Your task to perform on an android device: Add bose quietcomfort 35 to the cart on bestbuy Image 0: 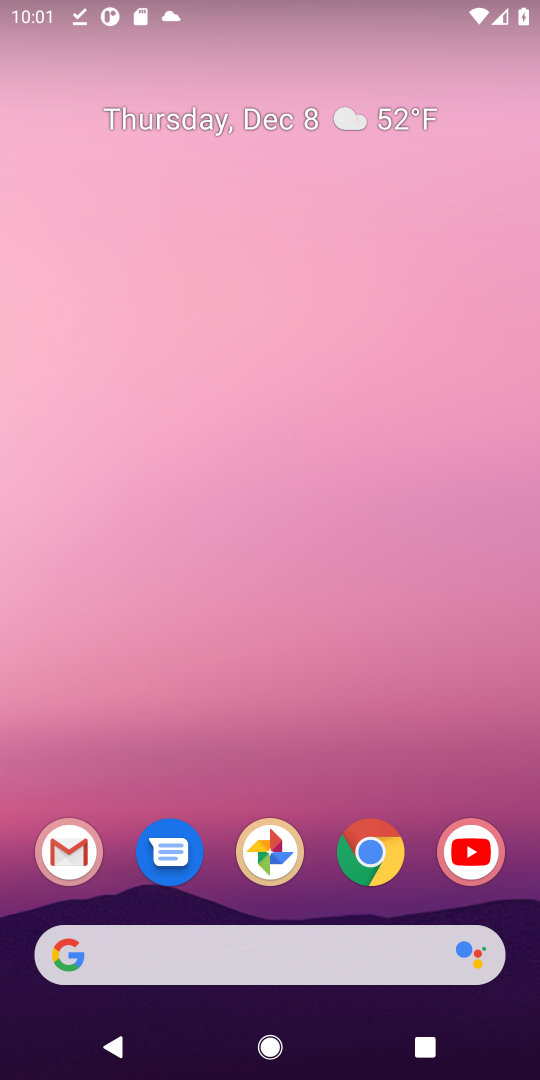
Step 0: click (262, 964)
Your task to perform on an android device: Add bose quietcomfort 35 to the cart on bestbuy Image 1: 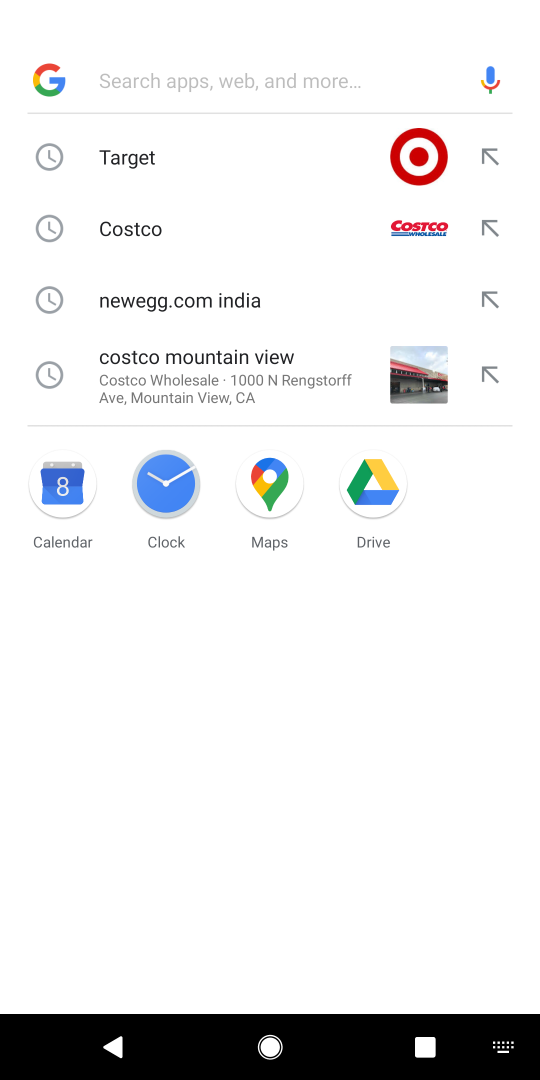
Step 1: type "bestbuy"
Your task to perform on an android device: Add bose quietcomfort 35 to the cart on bestbuy Image 2: 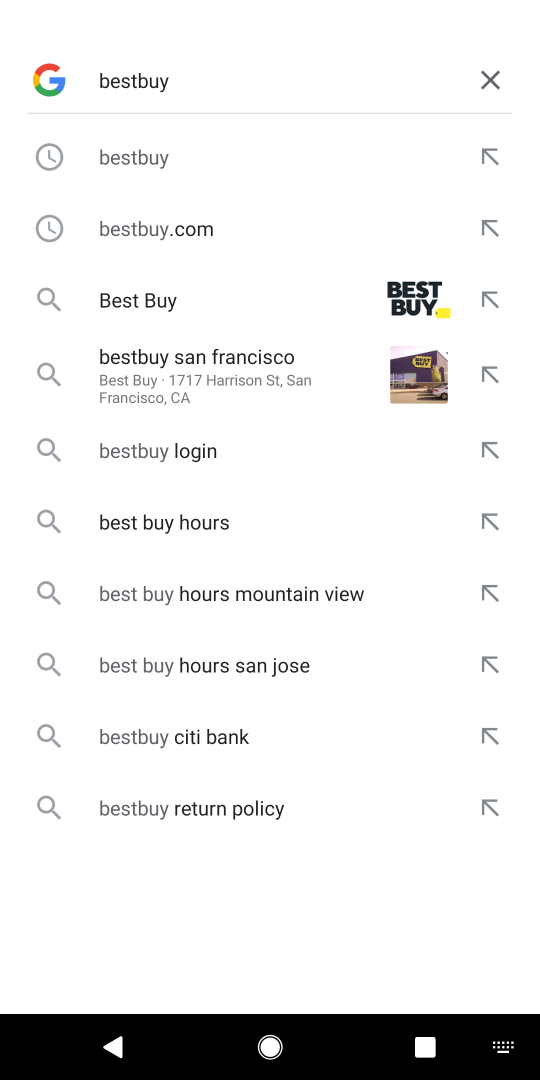
Step 2: click (163, 301)
Your task to perform on an android device: Add bose quietcomfort 35 to the cart on bestbuy Image 3: 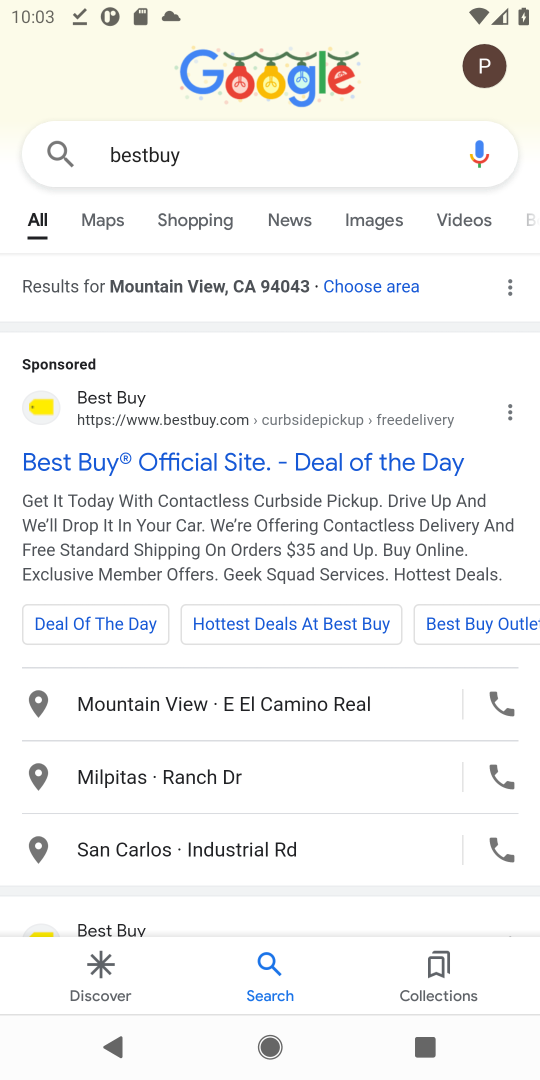
Step 3: click (179, 421)
Your task to perform on an android device: Add bose quietcomfort 35 to the cart on bestbuy Image 4: 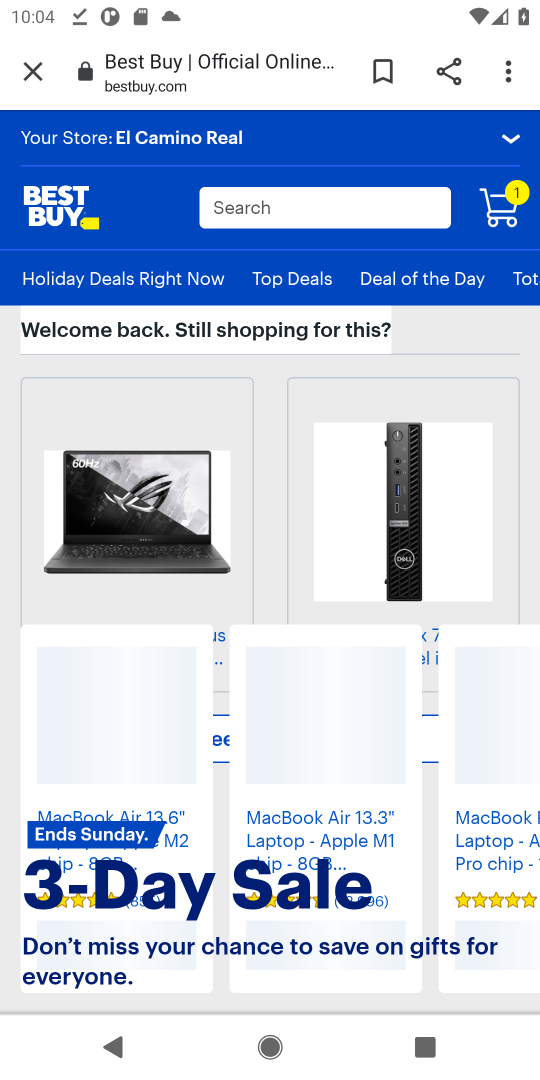
Step 4: task complete